Your task to perform on an android device: Show me popular videos on Youtube Image 0: 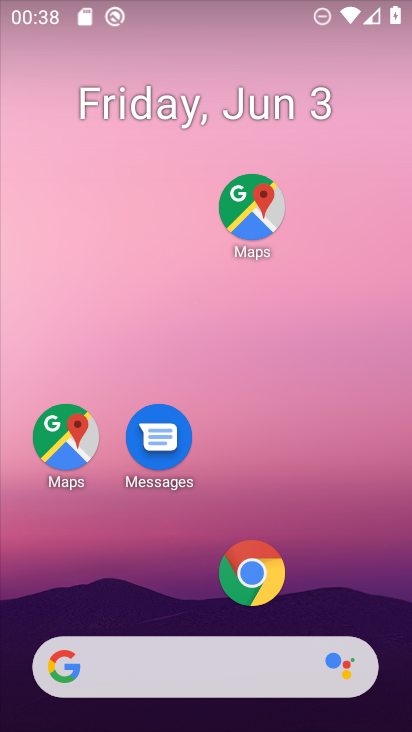
Step 0: drag from (364, 525) to (288, 37)
Your task to perform on an android device: Show me popular videos on Youtube Image 1: 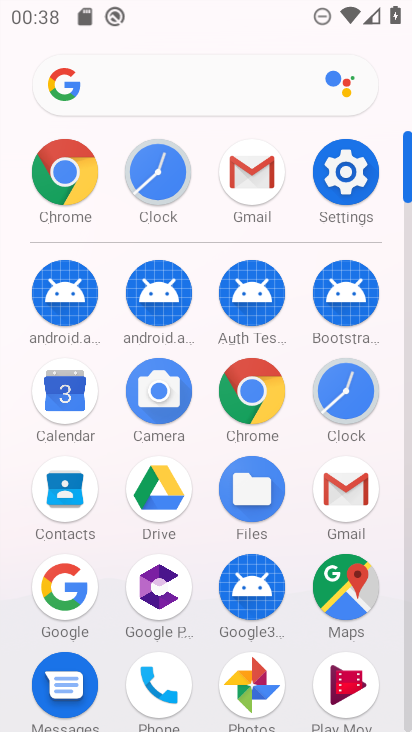
Step 1: drag from (272, 571) to (246, 236)
Your task to perform on an android device: Show me popular videos on Youtube Image 2: 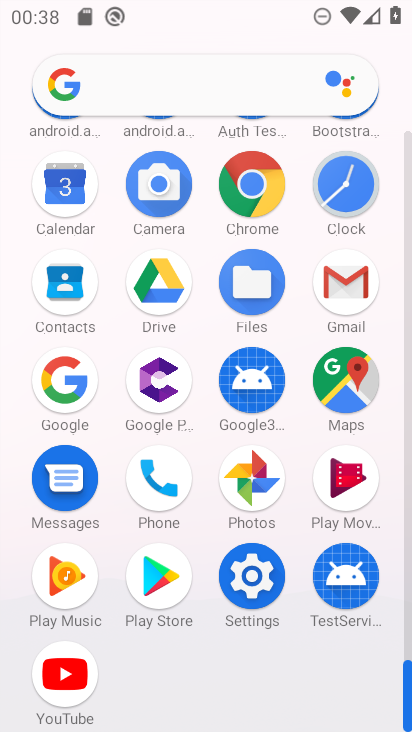
Step 2: click (51, 665)
Your task to perform on an android device: Show me popular videos on Youtube Image 3: 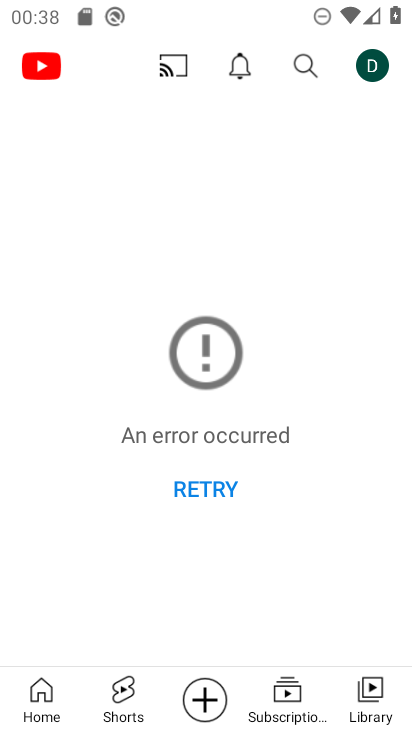
Step 3: click (296, 61)
Your task to perform on an android device: Show me popular videos on Youtube Image 4: 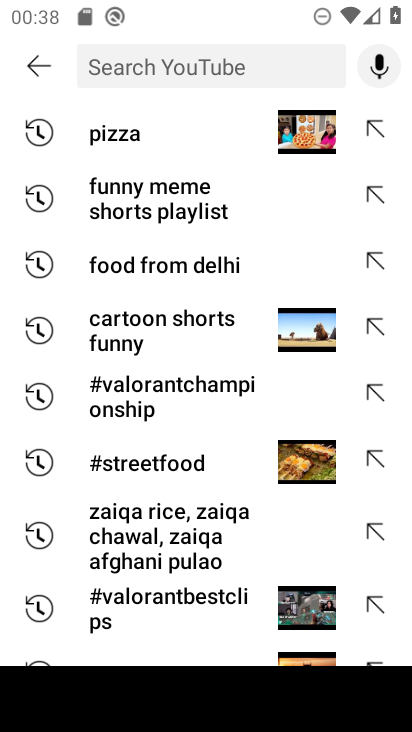
Step 4: type "popular videos"
Your task to perform on an android device: Show me popular videos on Youtube Image 5: 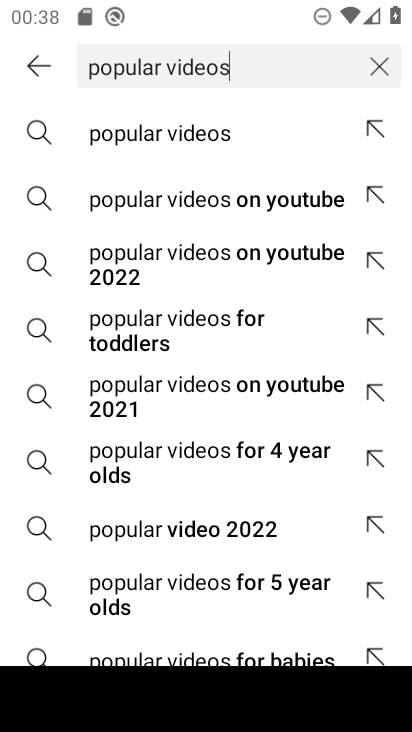
Step 5: click (206, 206)
Your task to perform on an android device: Show me popular videos on Youtube Image 6: 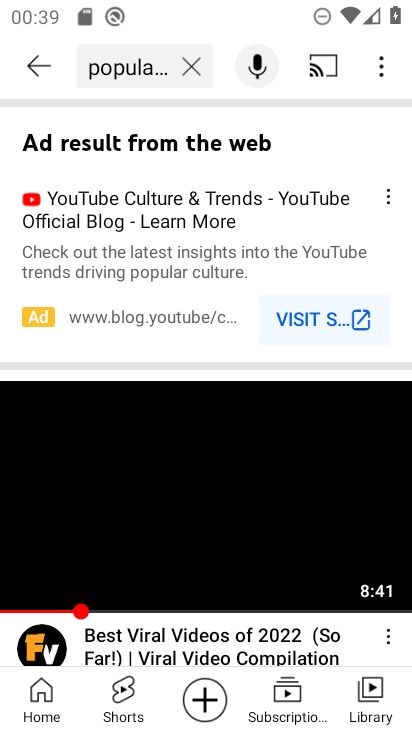
Step 6: task complete